Your task to perform on an android device: Open calendar and show me the fourth week of next month Image 0: 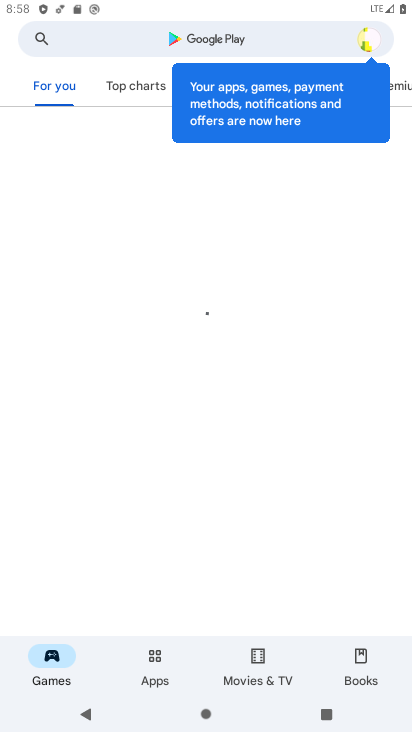
Step 0: press home button
Your task to perform on an android device: Open calendar and show me the fourth week of next month Image 1: 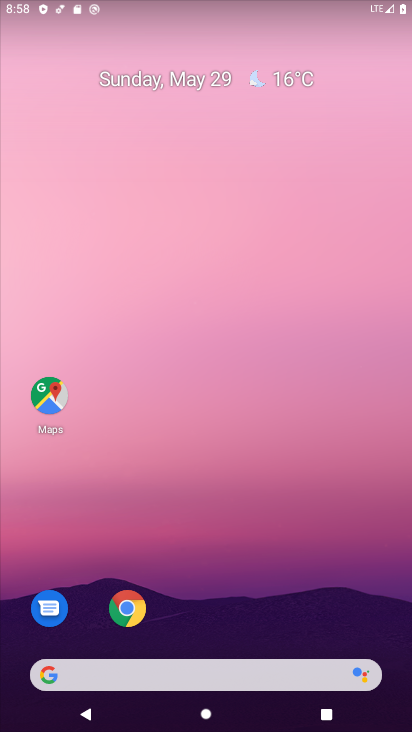
Step 1: drag from (191, 608) to (153, 1)
Your task to perform on an android device: Open calendar and show me the fourth week of next month Image 2: 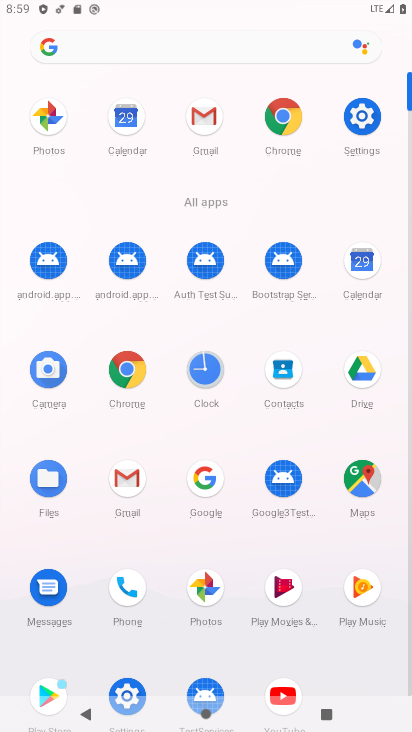
Step 2: click (364, 277)
Your task to perform on an android device: Open calendar and show me the fourth week of next month Image 3: 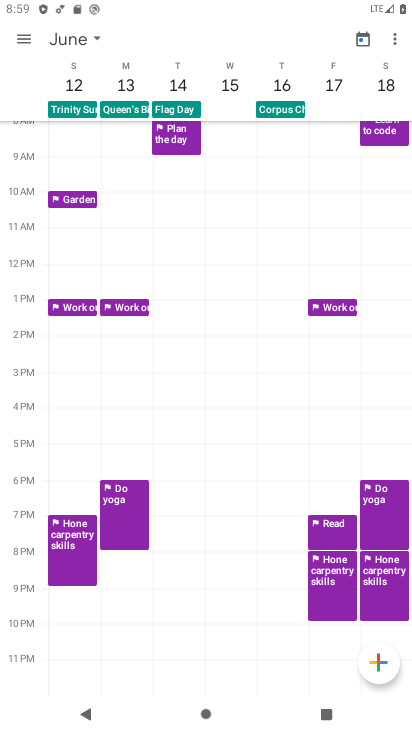
Step 3: click (45, 48)
Your task to perform on an android device: Open calendar and show me the fourth week of next month Image 4: 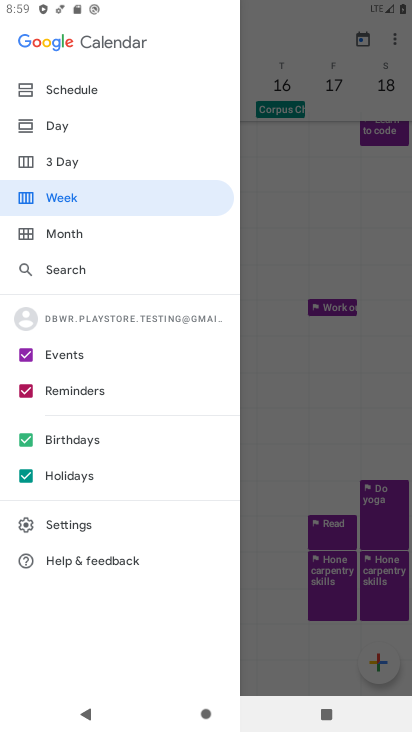
Step 4: click (70, 194)
Your task to perform on an android device: Open calendar and show me the fourth week of next month Image 5: 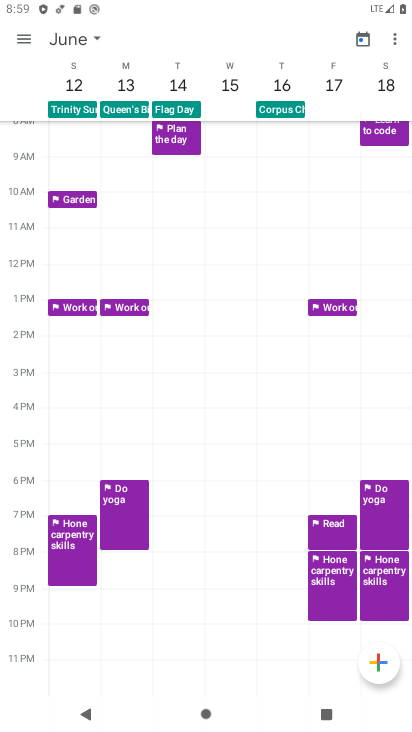
Step 5: click (66, 48)
Your task to perform on an android device: Open calendar and show me the fourth week of next month Image 6: 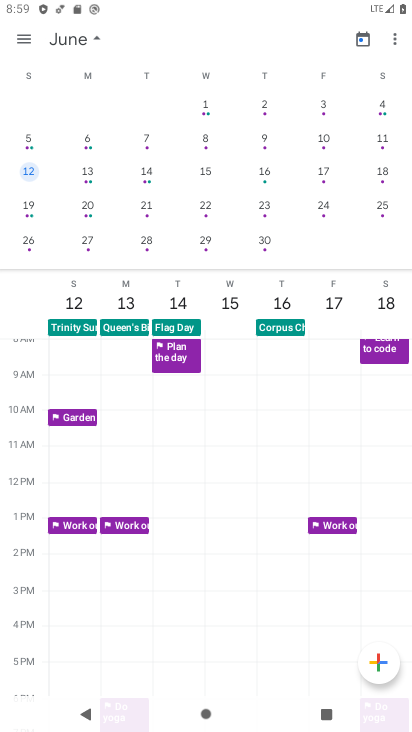
Step 6: click (23, 243)
Your task to perform on an android device: Open calendar and show me the fourth week of next month Image 7: 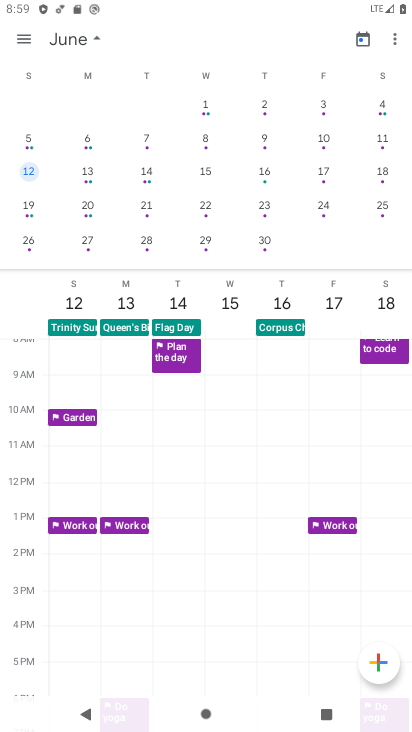
Step 7: click (32, 241)
Your task to perform on an android device: Open calendar and show me the fourth week of next month Image 8: 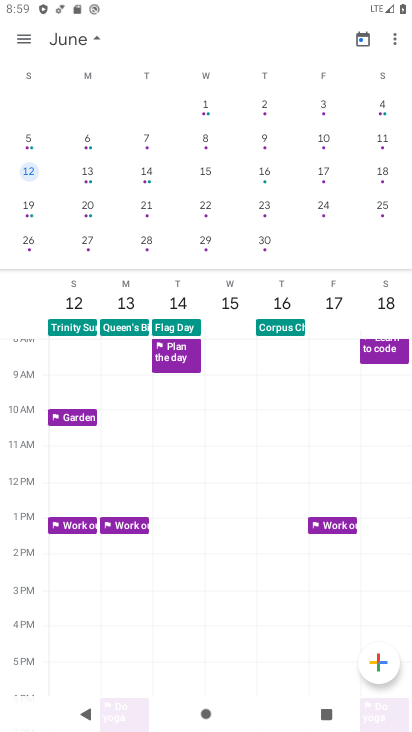
Step 8: click (24, 246)
Your task to perform on an android device: Open calendar and show me the fourth week of next month Image 9: 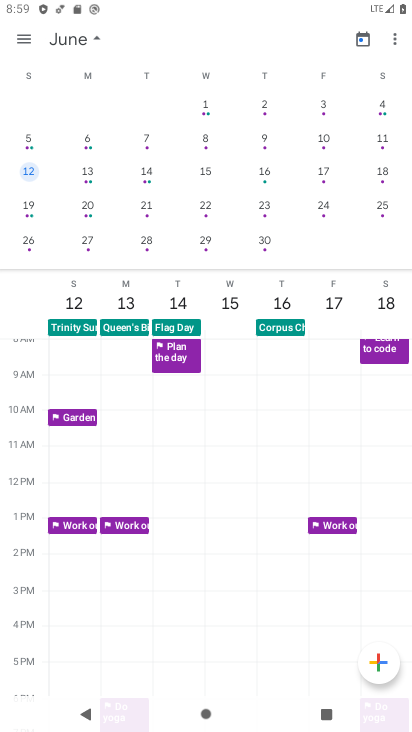
Step 9: click (21, 239)
Your task to perform on an android device: Open calendar and show me the fourth week of next month Image 10: 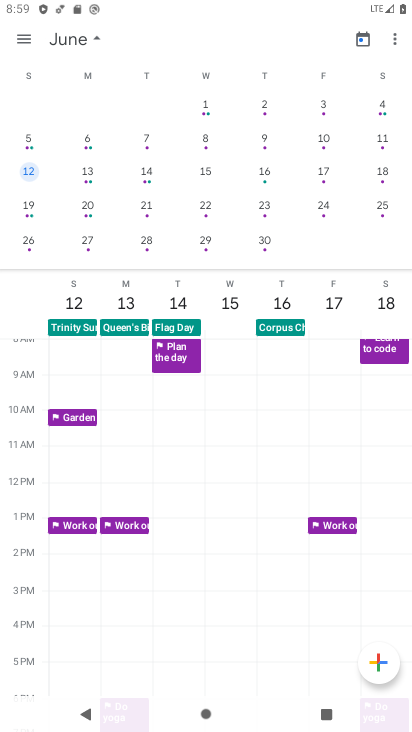
Step 10: click (21, 239)
Your task to perform on an android device: Open calendar and show me the fourth week of next month Image 11: 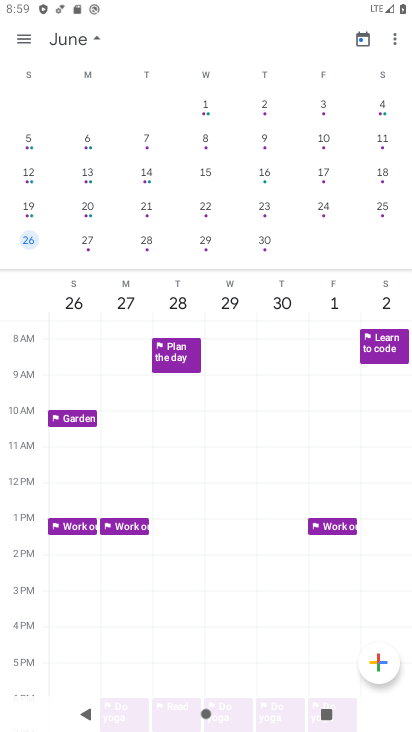
Step 11: task complete